Your task to perform on an android device: Open Google Chrome and open the bookmarks view Image 0: 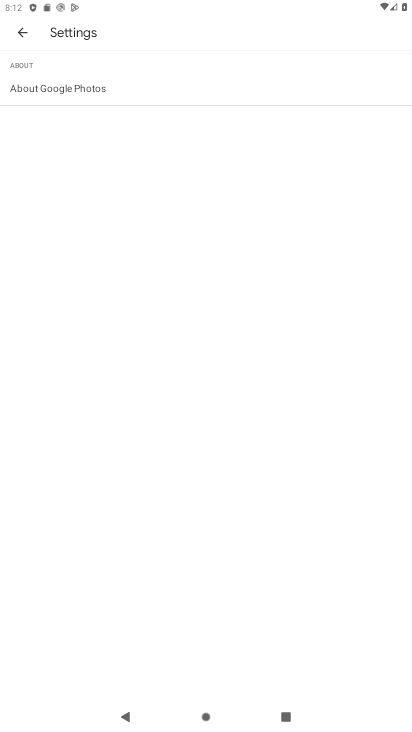
Step 0: press home button
Your task to perform on an android device: Open Google Chrome and open the bookmarks view Image 1: 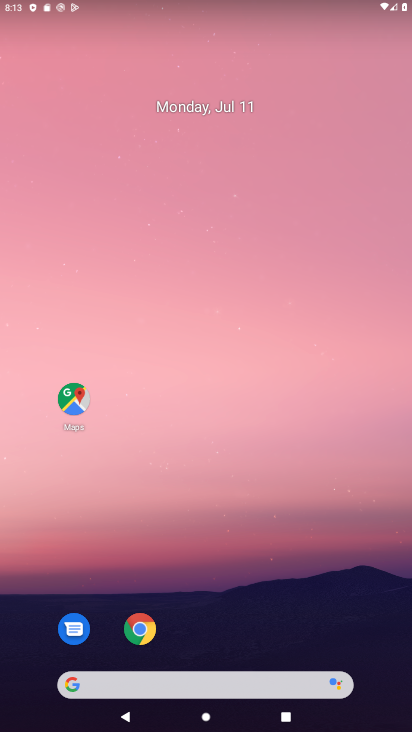
Step 1: click (141, 622)
Your task to perform on an android device: Open Google Chrome and open the bookmarks view Image 2: 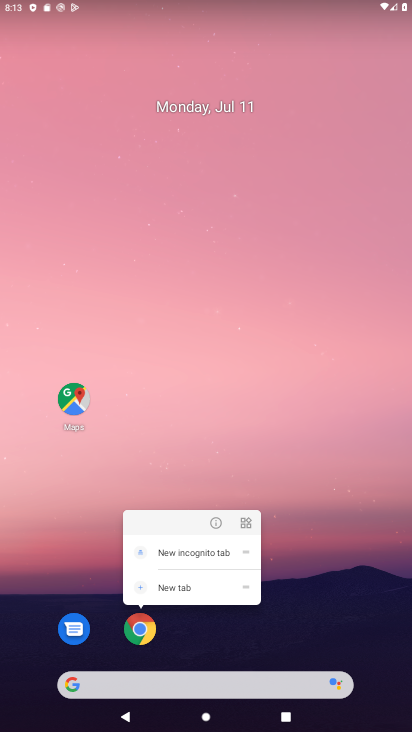
Step 2: click (149, 620)
Your task to perform on an android device: Open Google Chrome and open the bookmarks view Image 3: 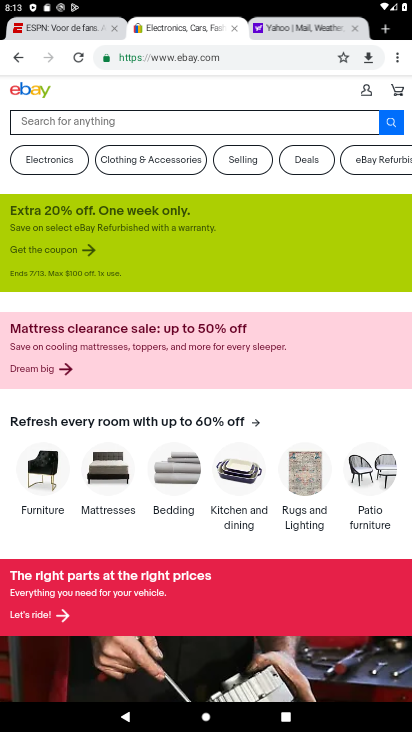
Step 3: click (398, 63)
Your task to perform on an android device: Open Google Chrome and open the bookmarks view Image 4: 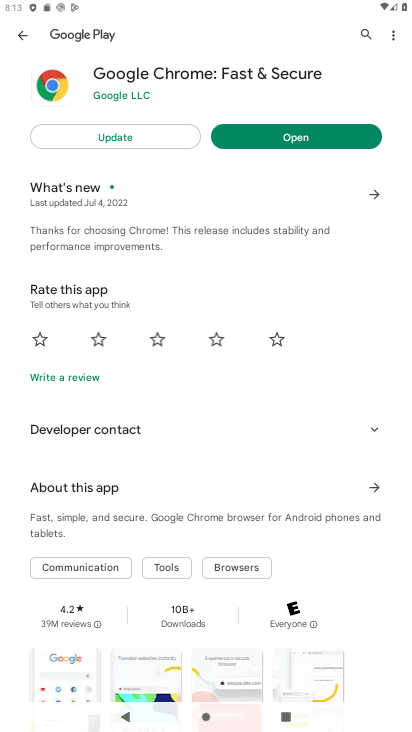
Step 4: task complete